Your task to perform on an android device: Search for a new desk on IKEA. Image 0: 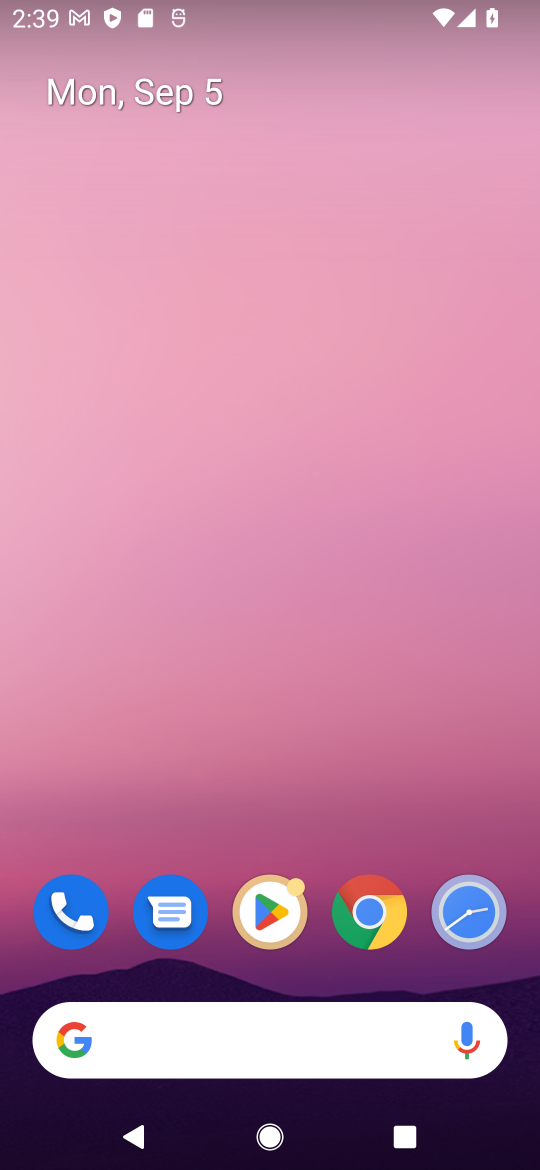
Step 0: click (374, 920)
Your task to perform on an android device: Search for a new desk on IKEA. Image 1: 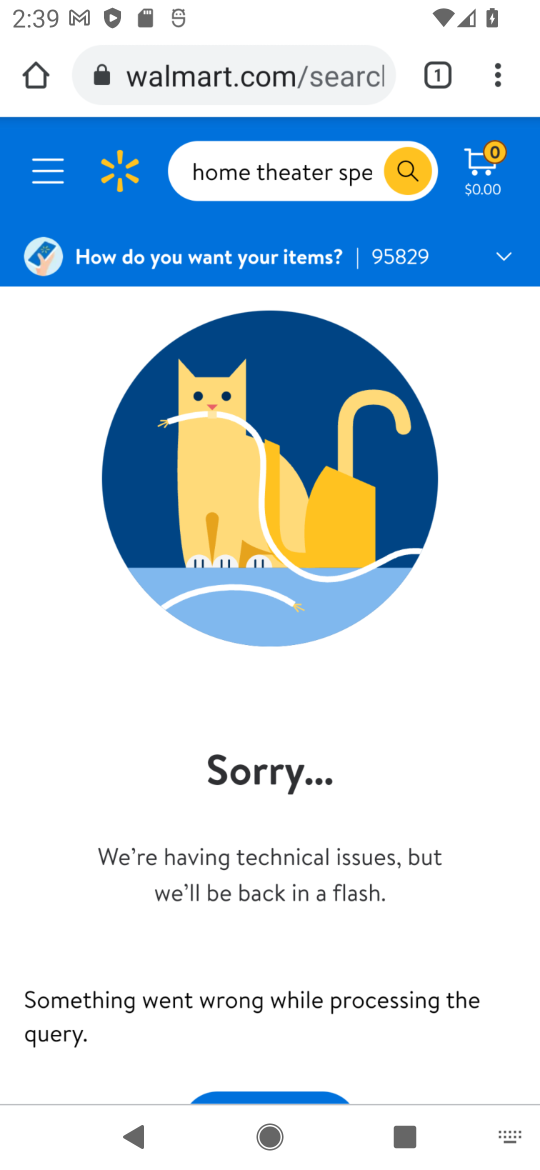
Step 1: click (288, 71)
Your task to perform on an android device: Search for a new desk on IKEA. Image 2: 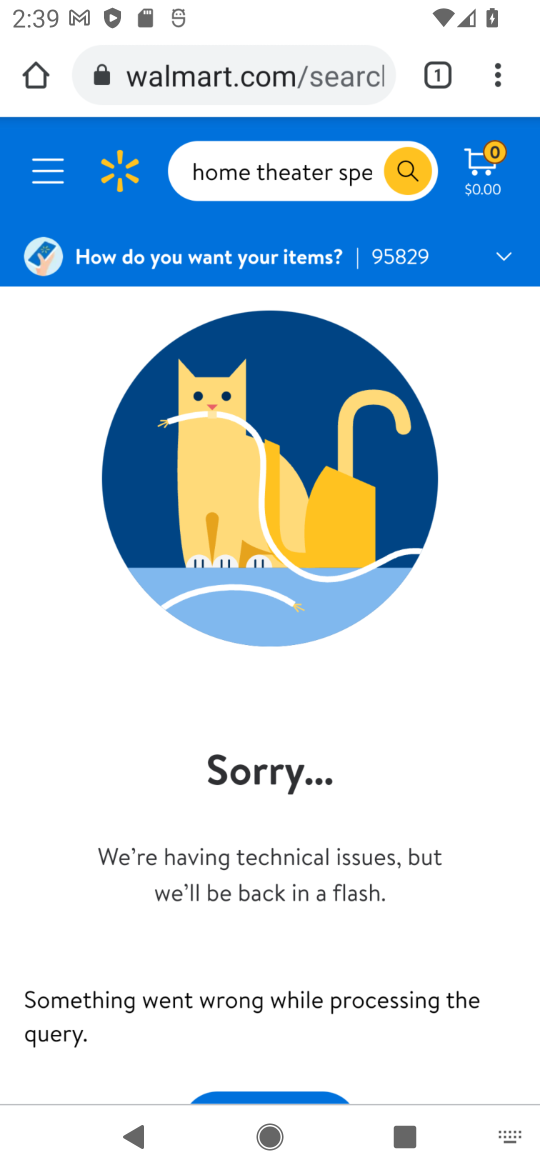
Step 2: click (287, 92)
Your task to perform on an android device: Search for a new desk on IKEA. Image 3: 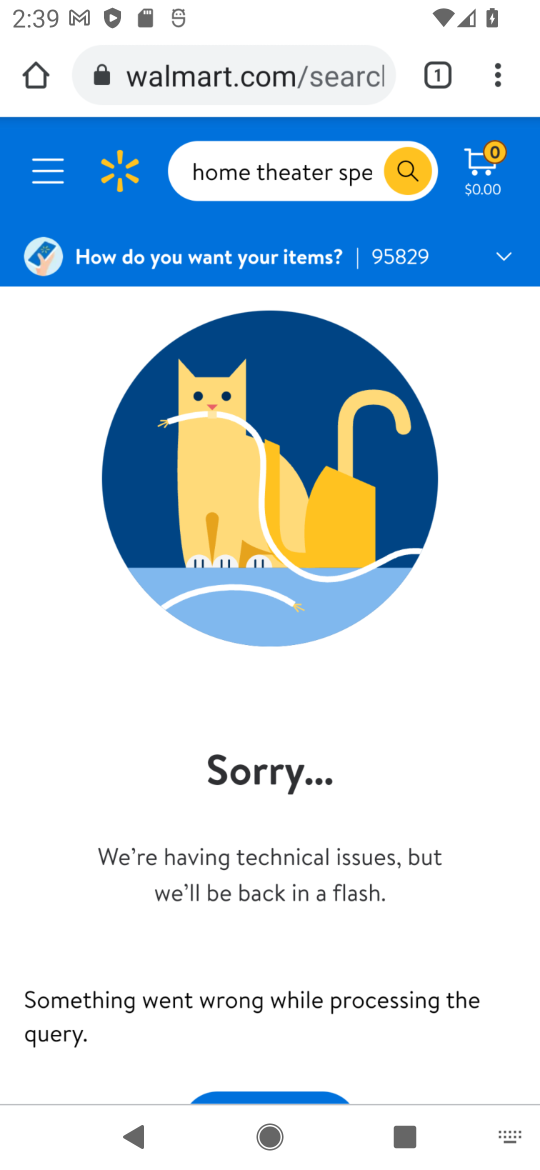
Step 3: click (202, 76)
Your task to perform on an android device: Search for a new desk on IKEA. Image 4: 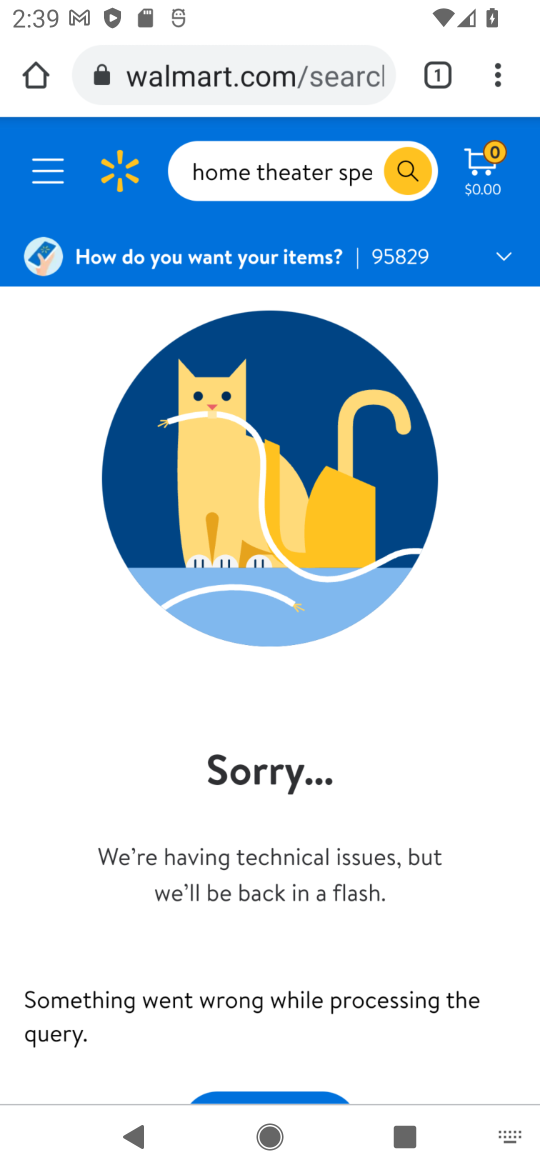
Step 4: click (259, 66)
Your task to perform on an android device: Search for a new desk on IKEA. Image 5: 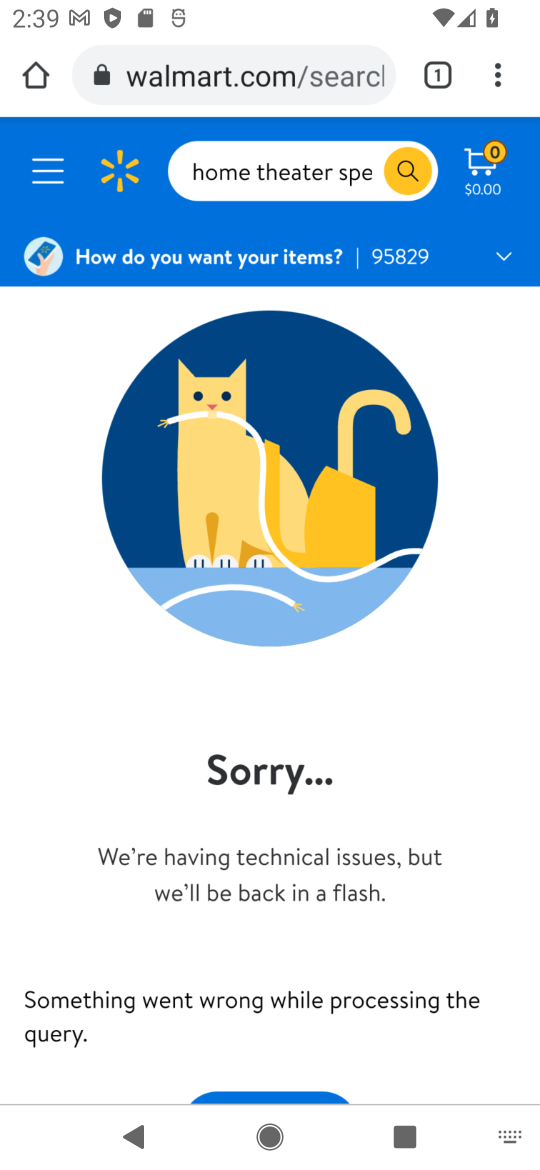
Step 5: click (439, 76)
Your task to perform on an android device: Search for a new desk on IKEA. Image 6: 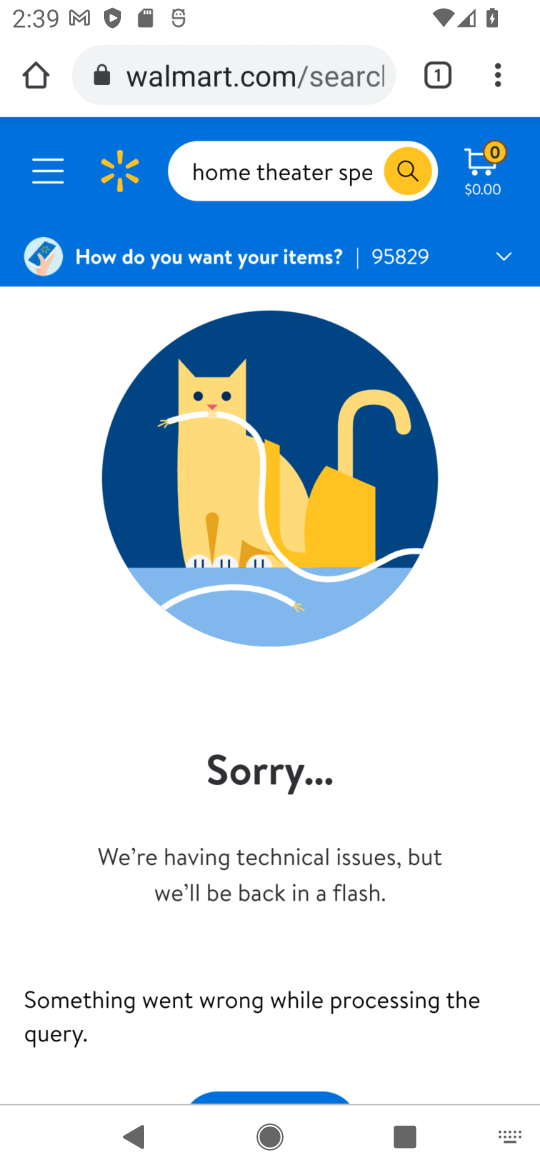
Step 6: drag from (302, 834) to (328, 558)
Your task to perform on an android device: Search for a new desk on IKEA. Image 7: 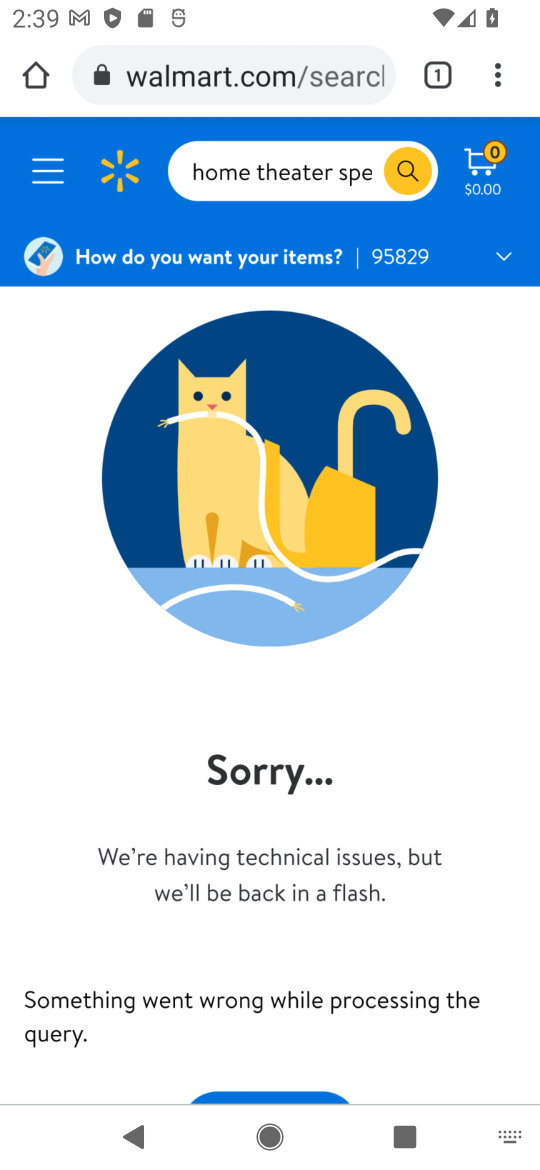
Step 7: press home button
Your task to perform on an android device: Search for a new desk on IKEA. Image 8: 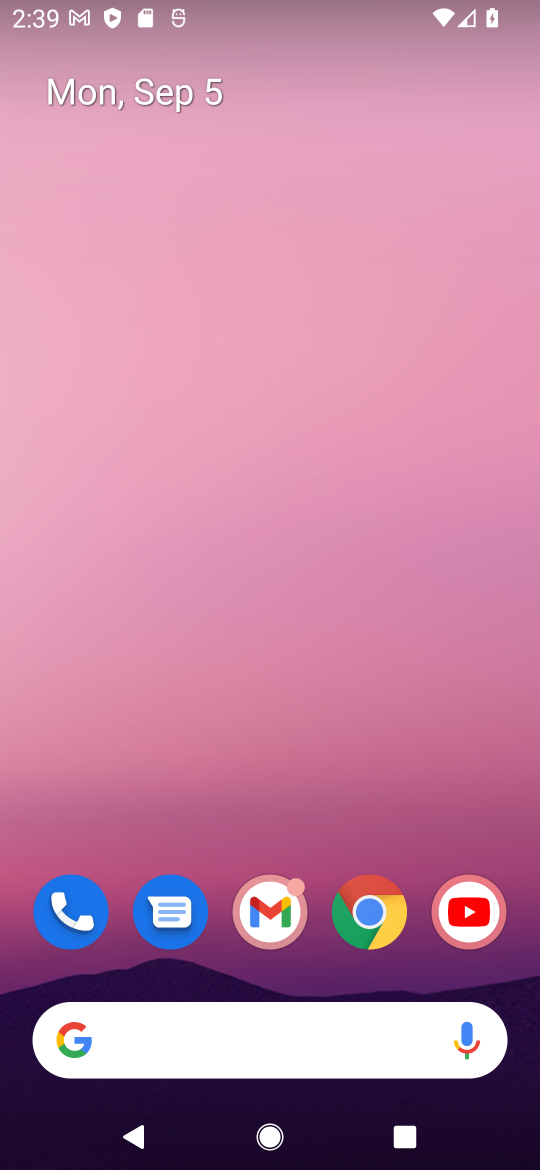
Step 8: click (383, 916)
Your task to perform on an android device: Search for a new desk on IKEA. Image 9: 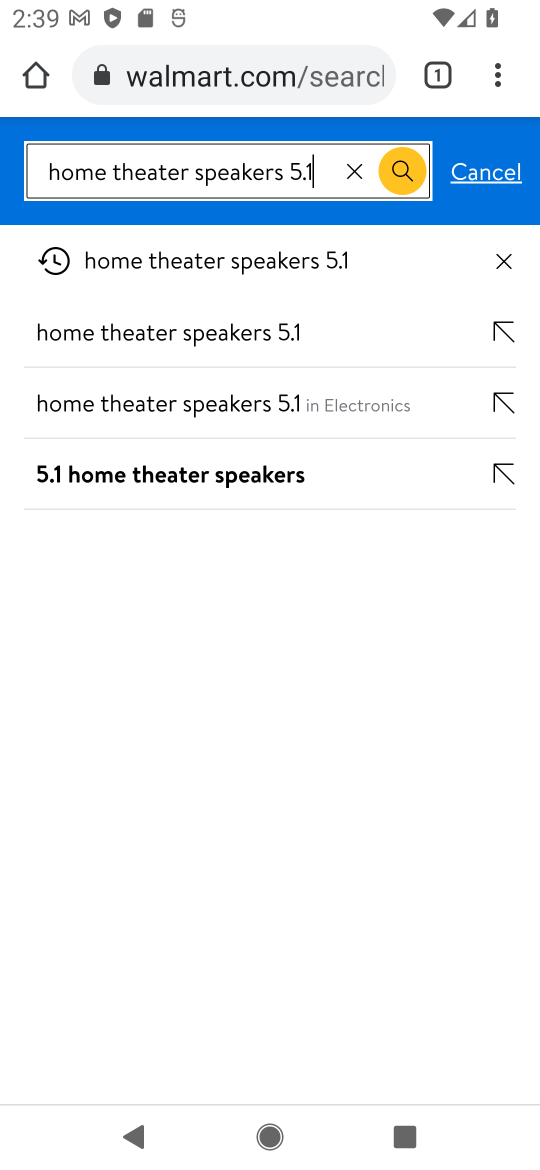
Step 9: click (236, 80)
Your task to perform on an android device: Search for a new desk on IKEA. Image 10: 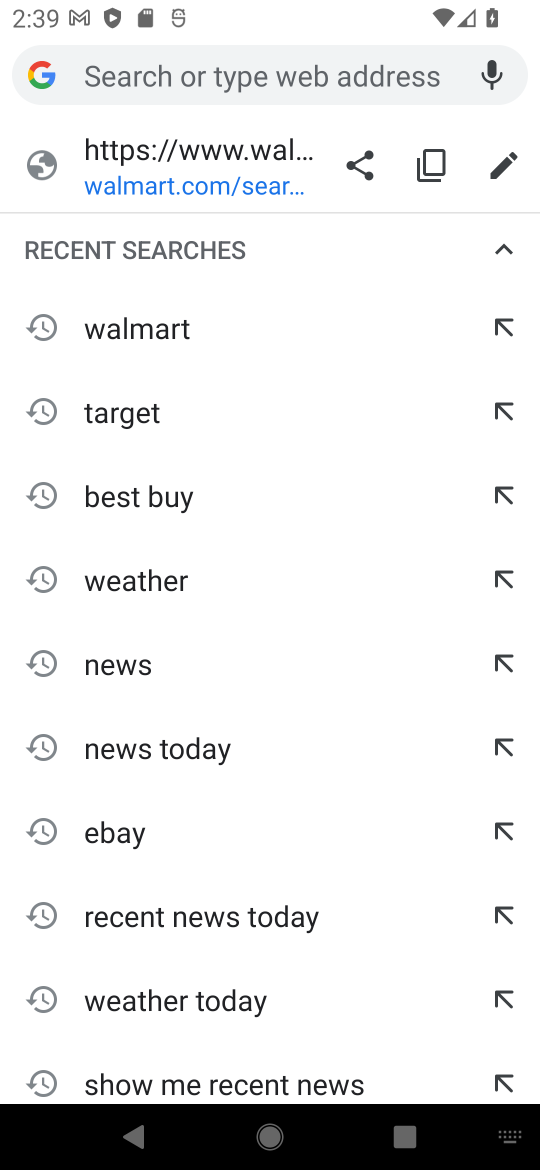
Step 10: type "ikea"
Your task to perform on an android device: Search for a new desk on IKEA. Image 11: 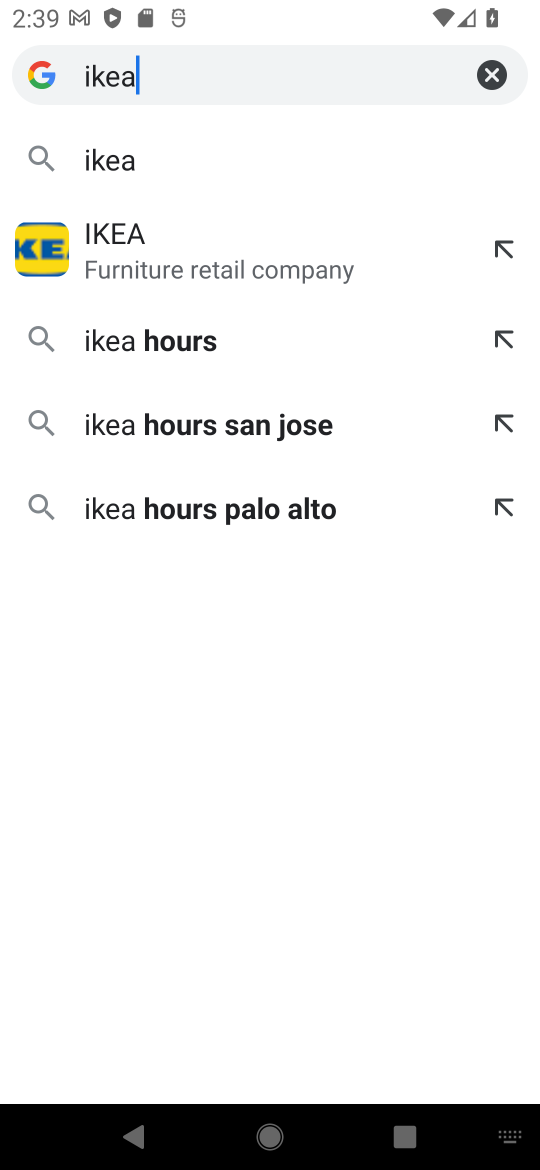
Step 11: click (280, 160)
Your task to perform on an android device: Search for a new desk on IKEA. Image 12: 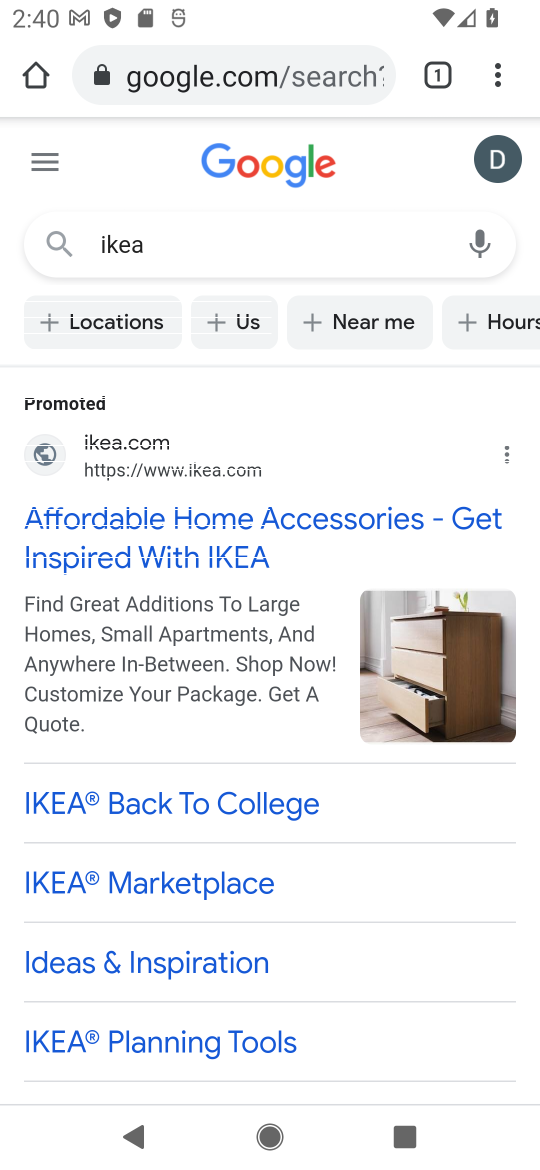
Step 12: click (181, 564)
Your task to perform on an android device: Search for a new desk on IKEA. Image 13: 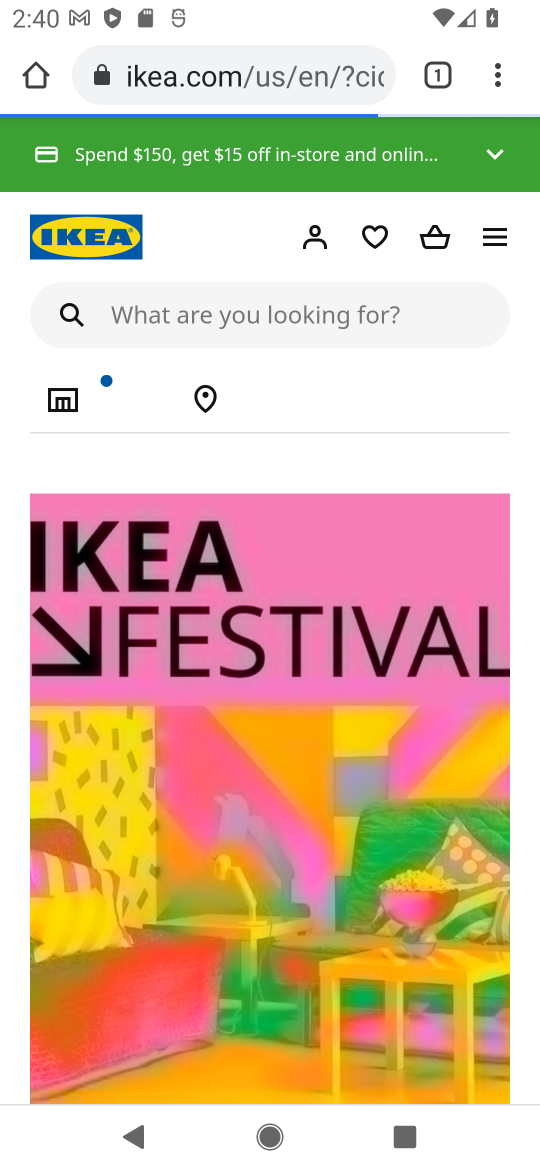
Step 13: click (223, 326)
Your task to perform on an android device: Search for a new desk on IKEA. Image 14: 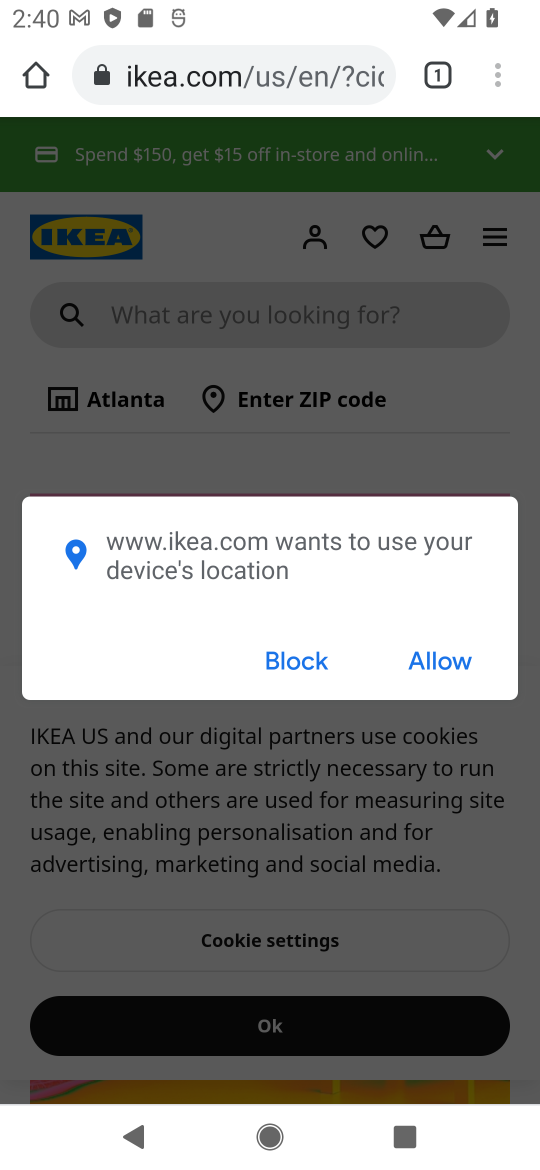
Step 14: type "new desk"
Your task to perform on an android device: Search for a new desk on IKEA. Image 15: 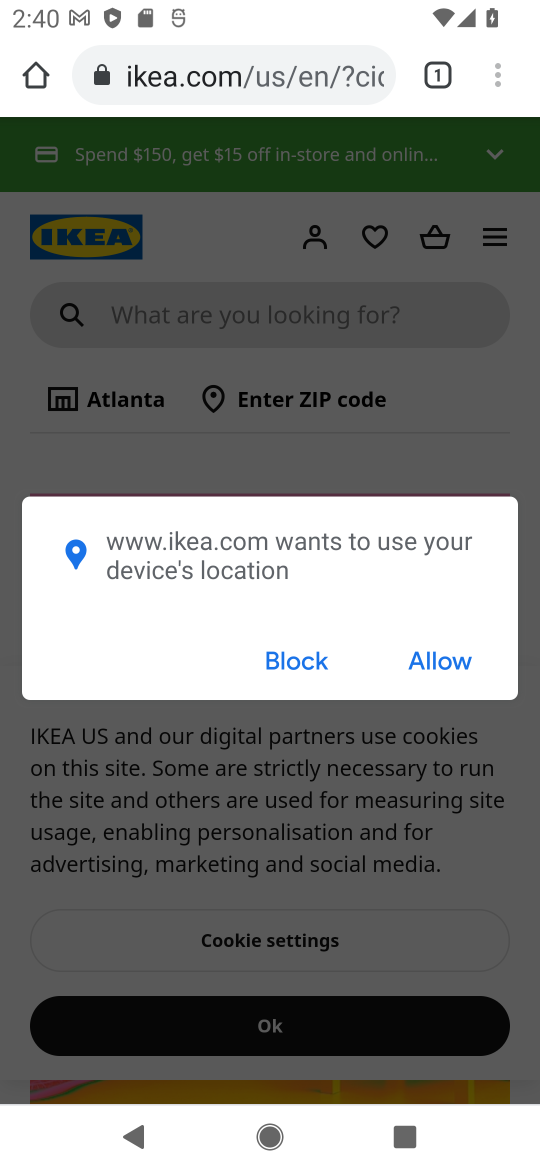
Step 15: click (470, 649)
Your task to perform on an android device: Search for a new desk on IKEA. Image 16: 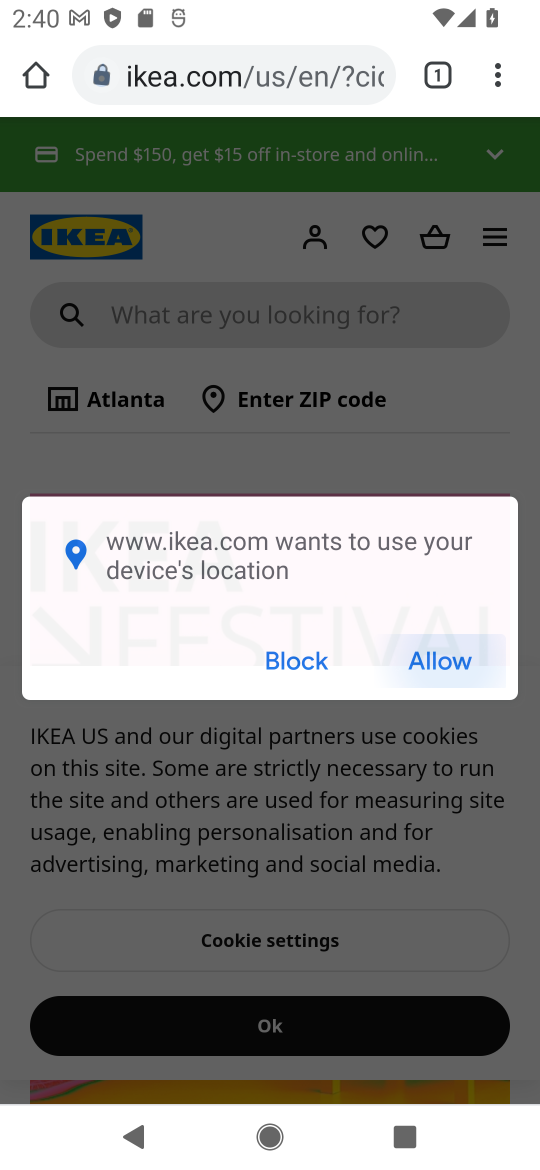
Step 16: click (440, 660)
Your task to perform on an android device: Search for a new desk on IKEA. Image 17: 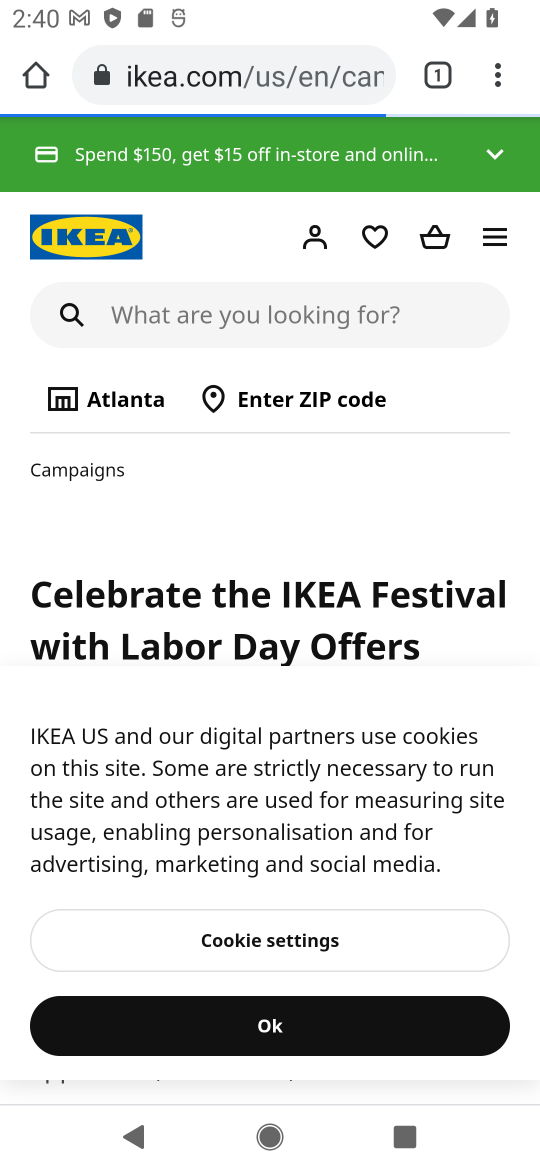
Step 17: click (340, 321)
Your task to perform on an android device: Search for a new desk on IKEA. Image 18: 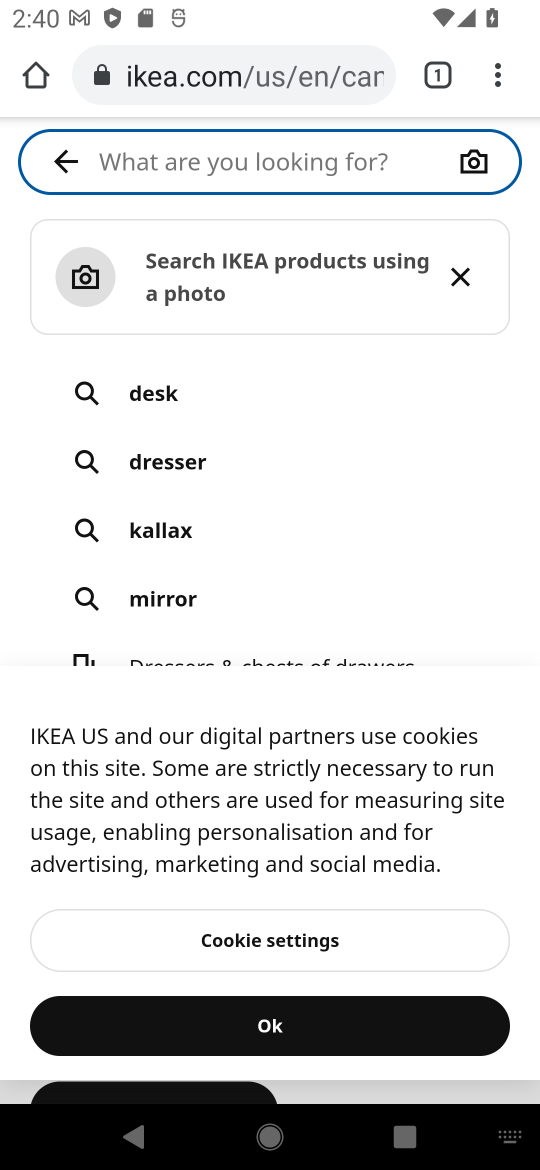
Step 18: type "new desk"
Your task to perform on an android device: Search for a new desk on IKEA. Image 19: 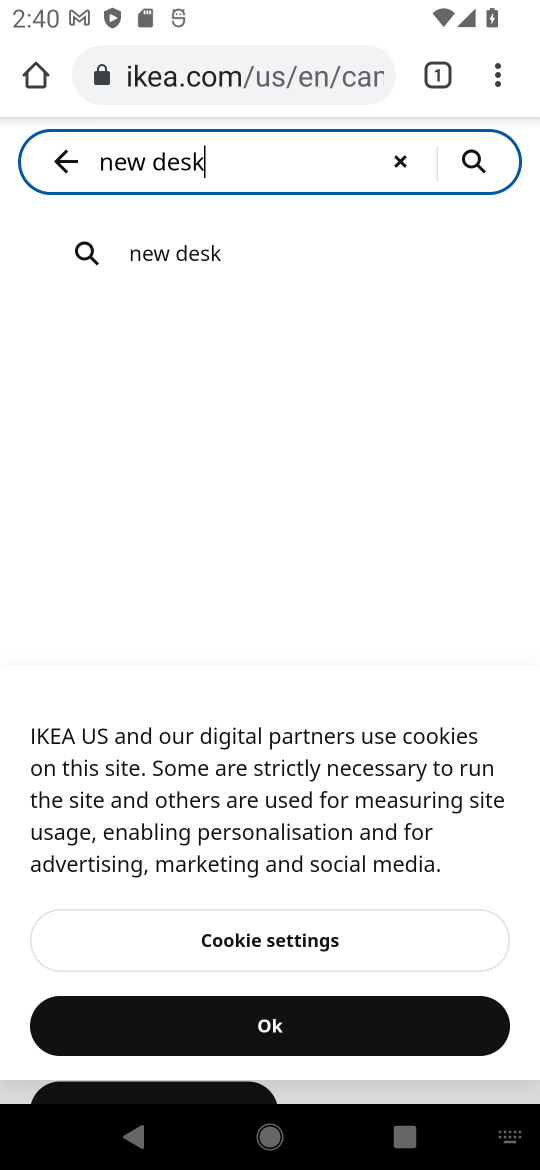
Step 19: press enter
Your task to perform on an android device: Search for a new desk on IKEA. Image 20: 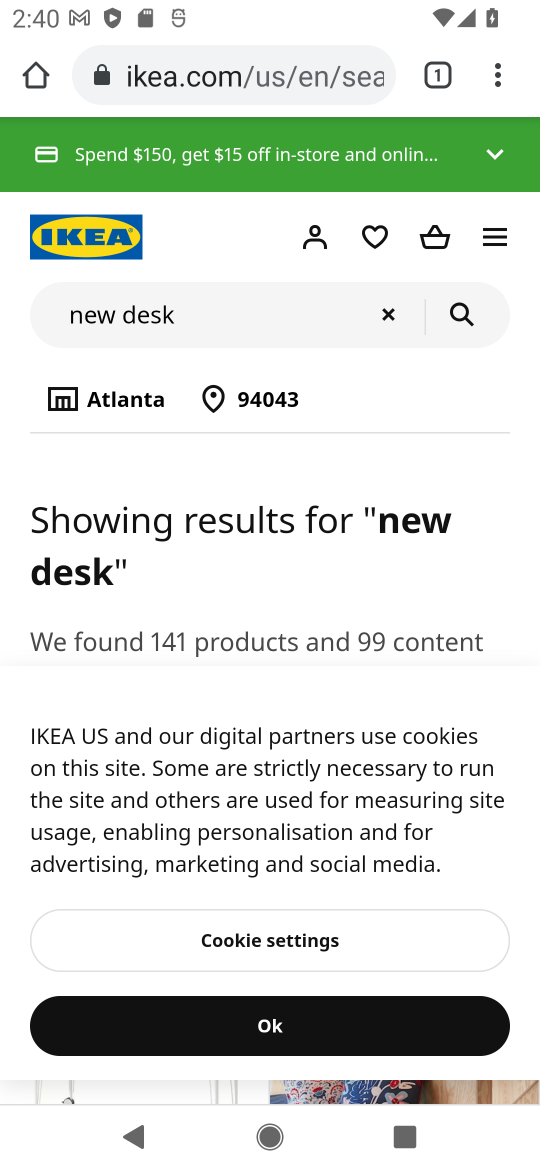
Step 20: click (319, 1021)
Your task to perform on an android device: Search for a new desk on IKEA. Image 21: 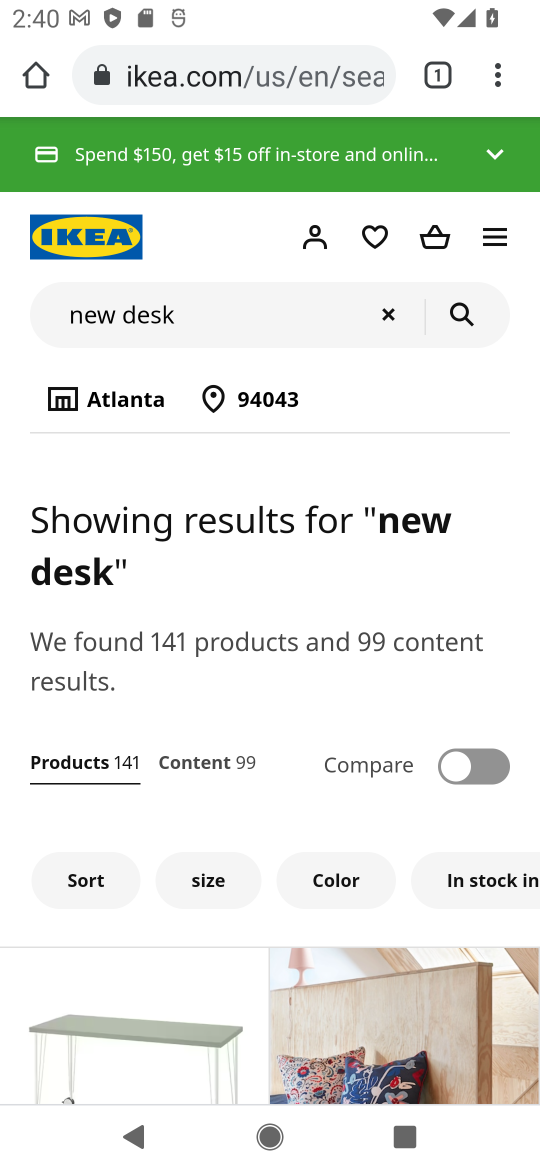
Step 21: drag from (298, 812) to (289, 404)
Your task to perform on an android device: Search for a new desk on IKEA. Image 22: 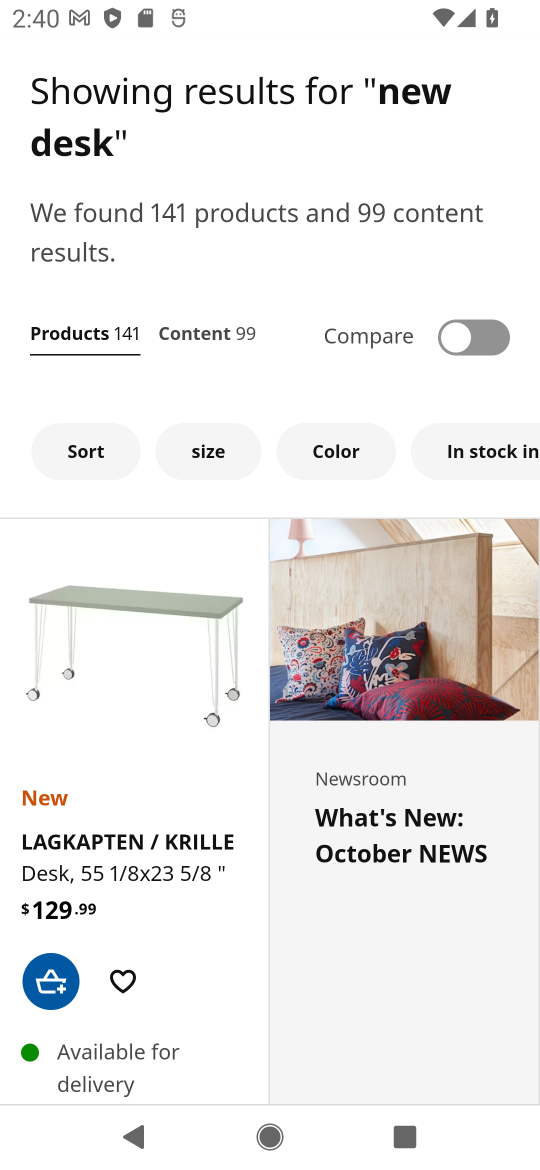
Step 22: click (59, 439)
Your task to perform on an android device: Search for a new desk on IKEA. Image 23: 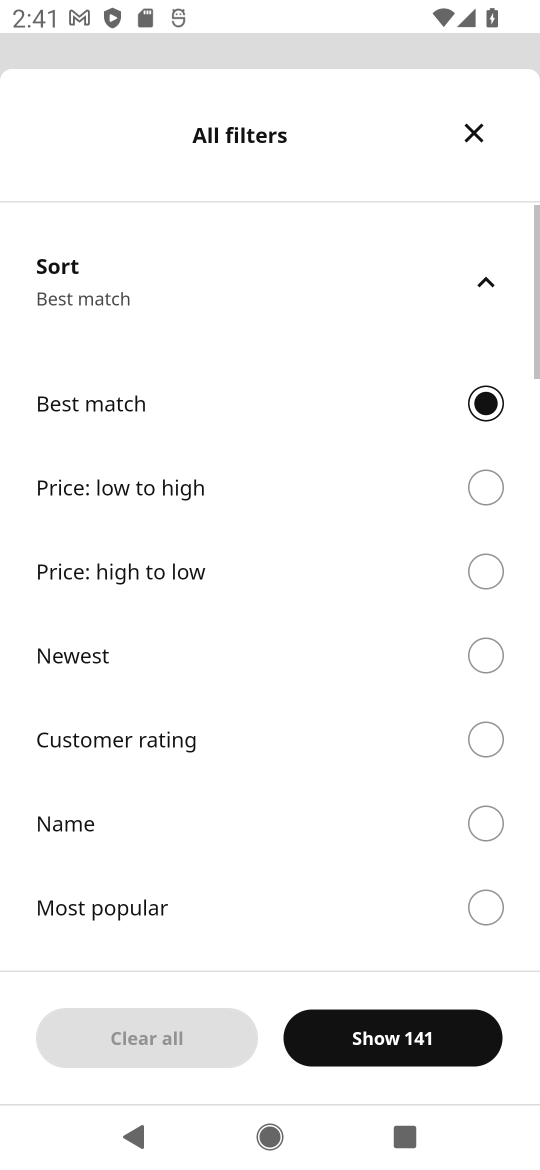
Step 23: click (472, 645)
Your task to perform on an android device: Search for a new desk on IKEA. Image 24: 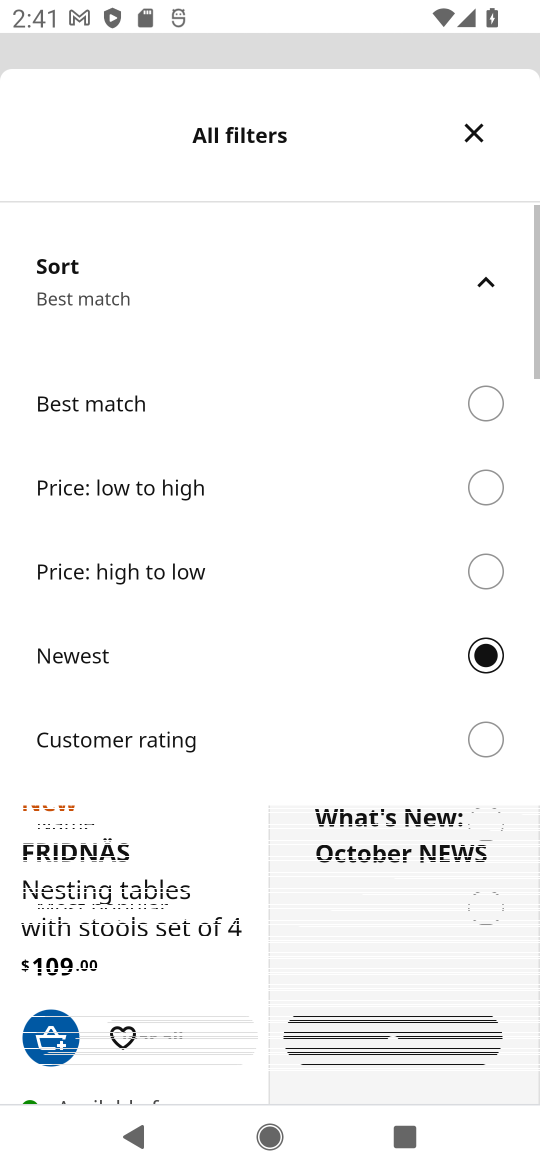
Step 24: drag from (338, 730) to (338, 613)
Your task to perform on an android device: Search for a new desk on IKEA. Image 25: 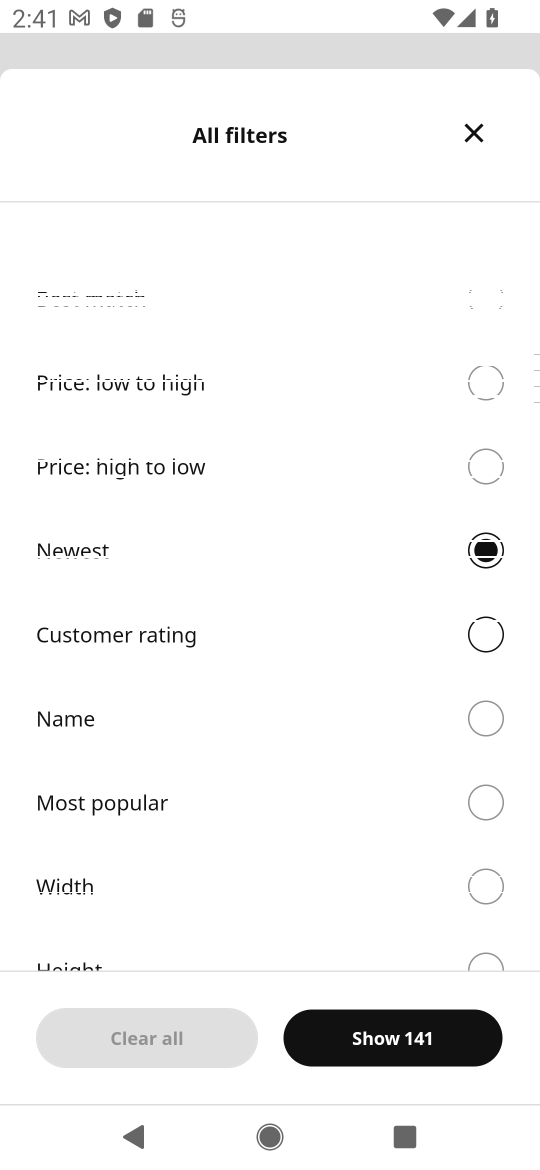
Step 25: click (392, 1046)
Your task to perform on an android device: Search for a new desk on IKEA. Image 26: 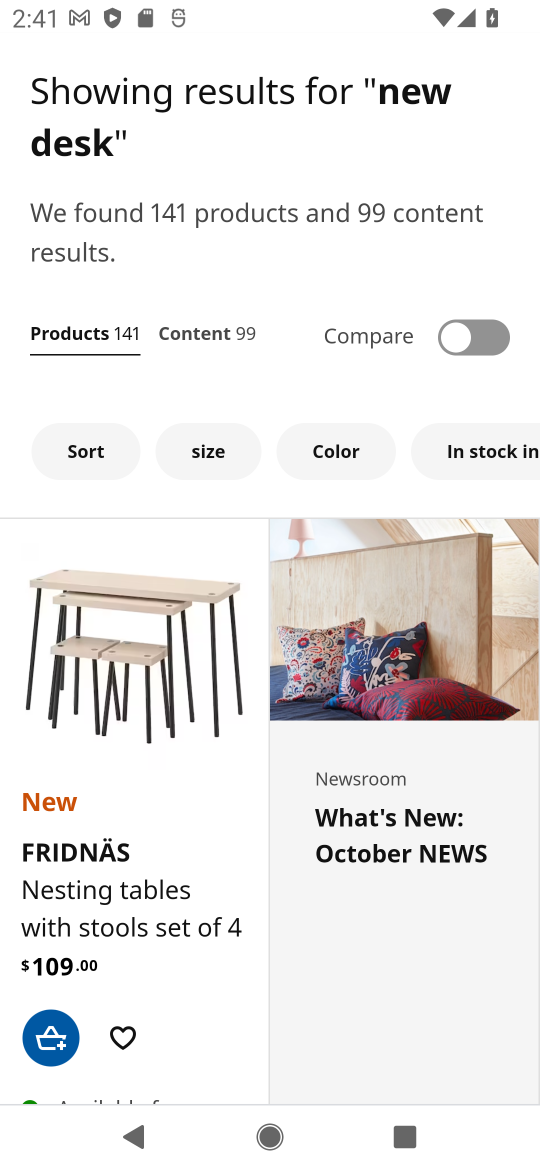
Step 26: task complete